Your task to perform on an android device: Open maps Image 0: 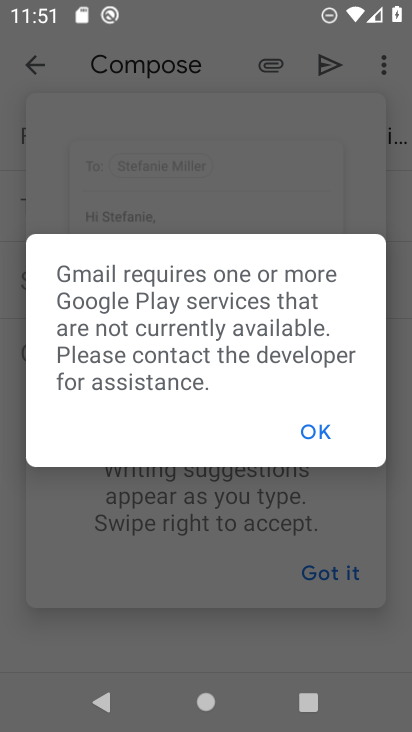
Step 0: click (306, 431)
Your task to perform on an android device: Open maps Image 1: 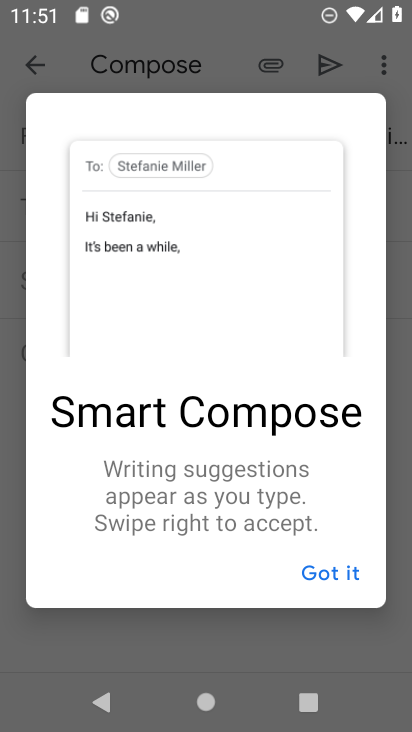
Step 1: press home button
Your task to perform on an android device: Open maps Image 2: 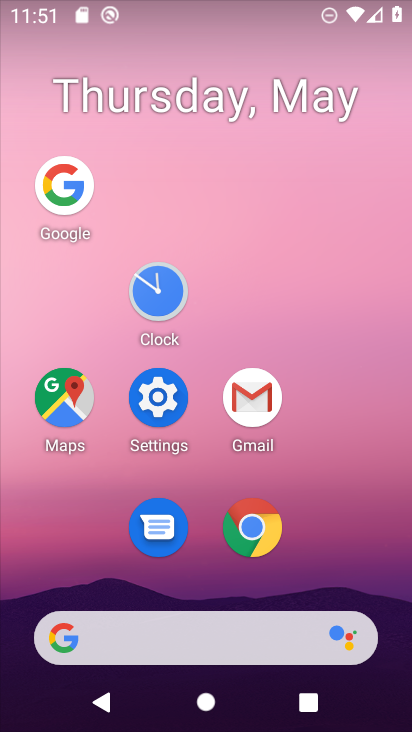
Step 2: click (62, 417)
Your task to perform on an android device: Open maps Image 3: 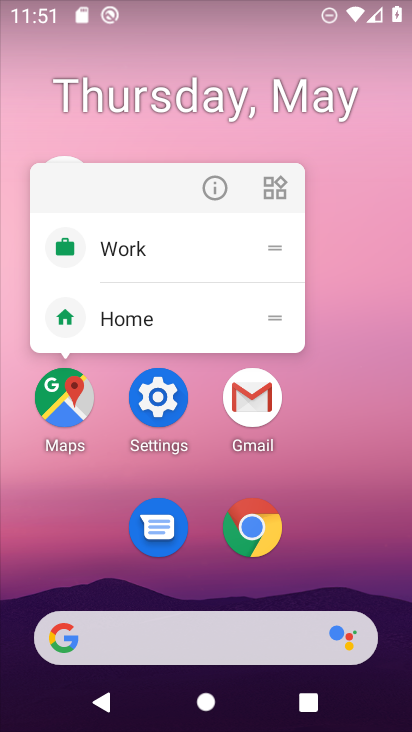
Step 3: click (396, 483)
Your task to perform on an android device: Open maps Image 4: 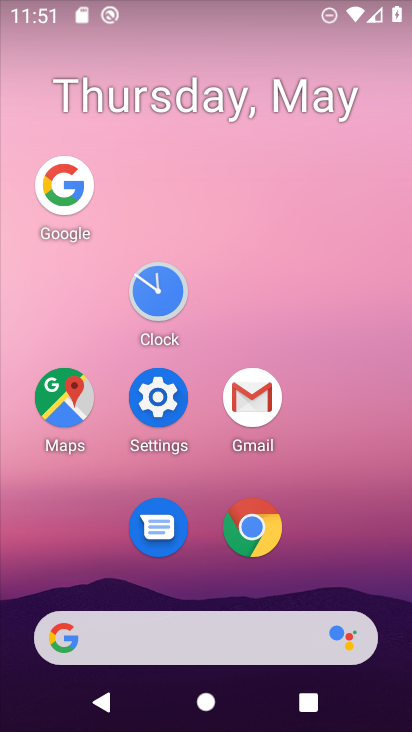
Step 4: click (75, 407)
Your task to perform on an android device: Open maps Image 5: 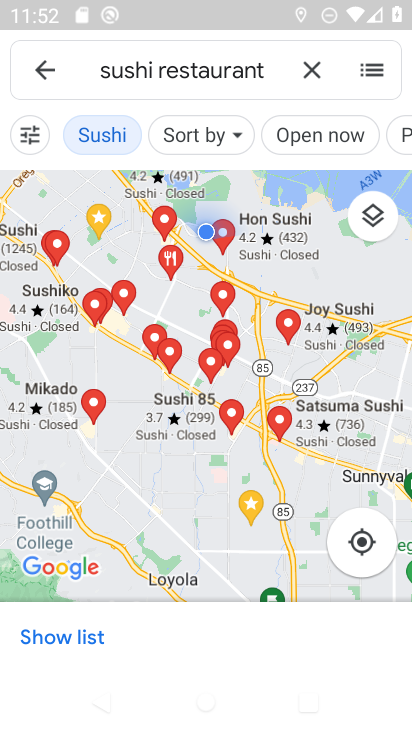
Step 5: task complete